Your task to perform on an android device: Search for "apple airpods" on costco.com, select the first entry, add it to the cart, then select checkout. Image 0: 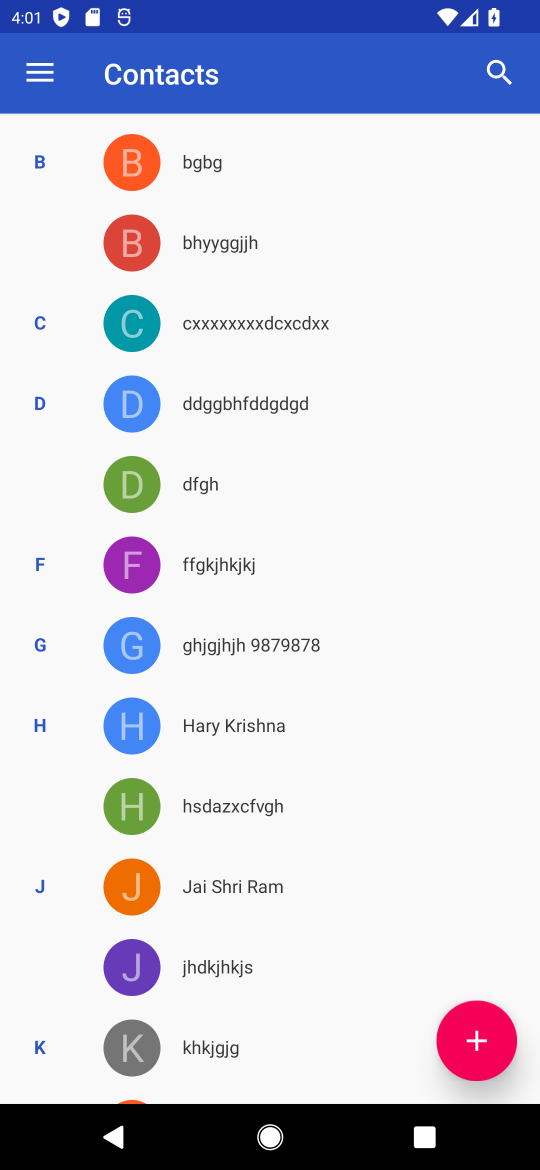
Step 0: press home button
Your task to perform on an android device: Search for "apple airpods" on costco.com, select the first entry, add it to the cart, then select checkout. Image 1: 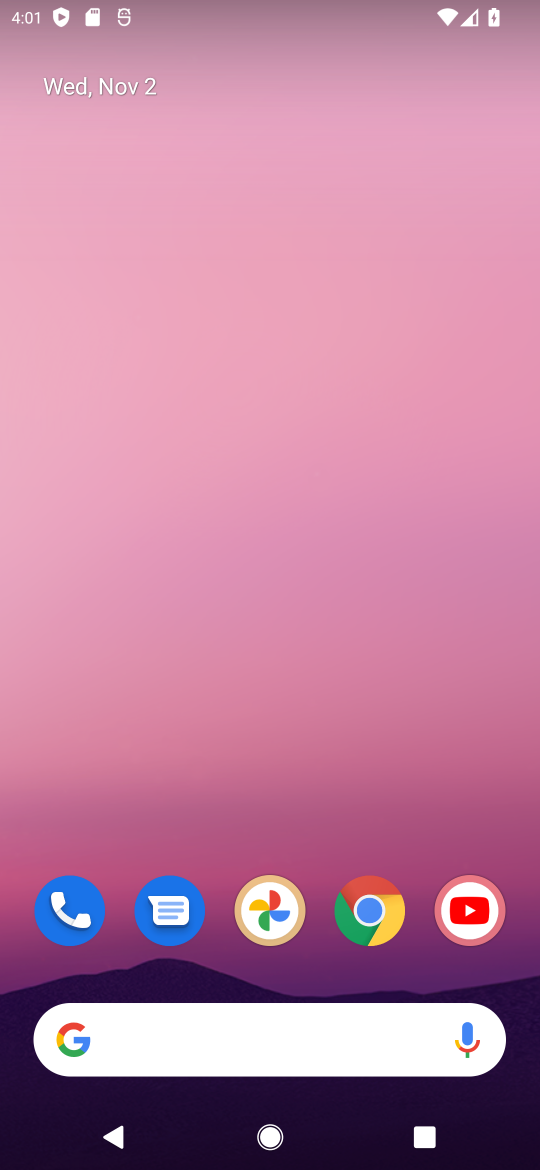
Step 1: click (380, 920)
Your task to perform on an android device: Search for "apple airpods" on costco.com, select the first entry, add it to the cart, then select checkout. Image 2: 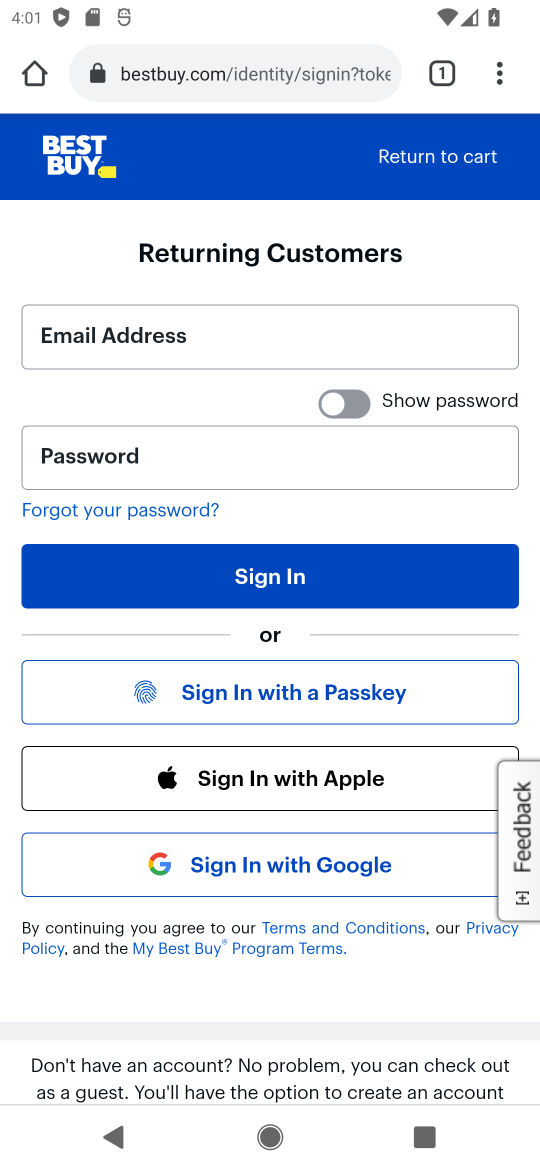
Step 2: click (155, 94)
Your task to perform on an android device: Search for "apple airpods" on costco.com, select the first entry, add it to the cart, then select checkout. Image 3: 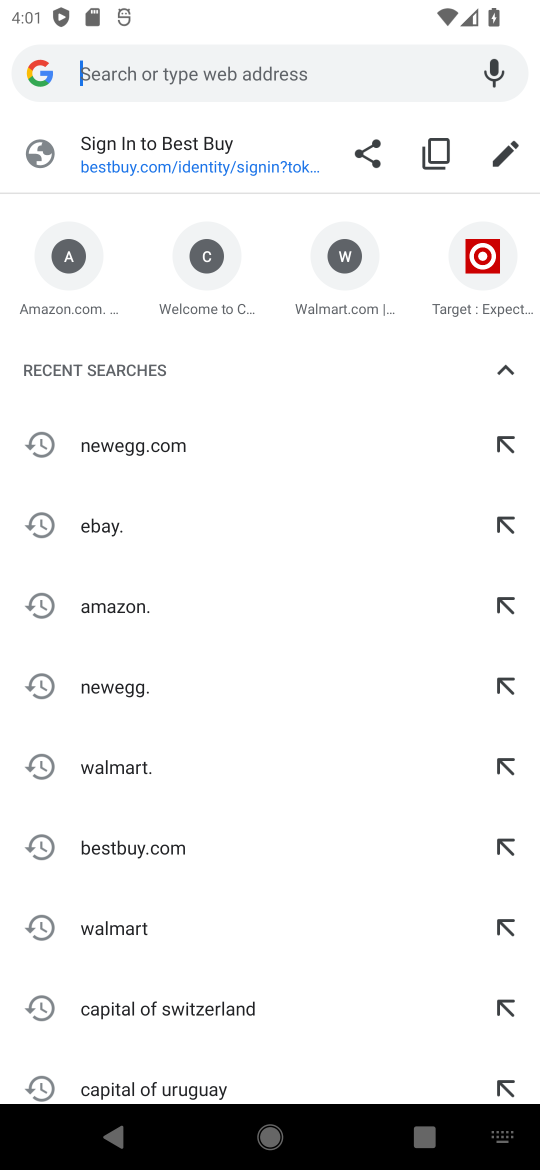
Step 3: type "costco.com"
Your task to perform on an android device: Search for "apple airpods" on costco.com, select the first entry, add it to the cart, then select checkout. Image 4: 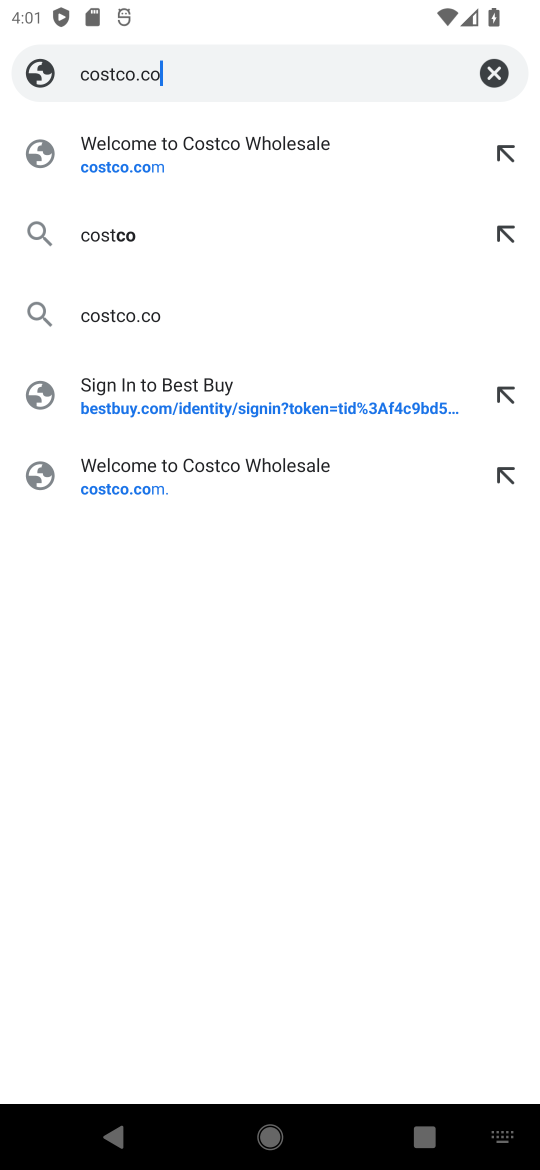
Step 4: type ""
Your task to perform on an android device: Search for "apple airpods" on costco.com, select the first entry, add it to the cart, then select checkout. Image 5: 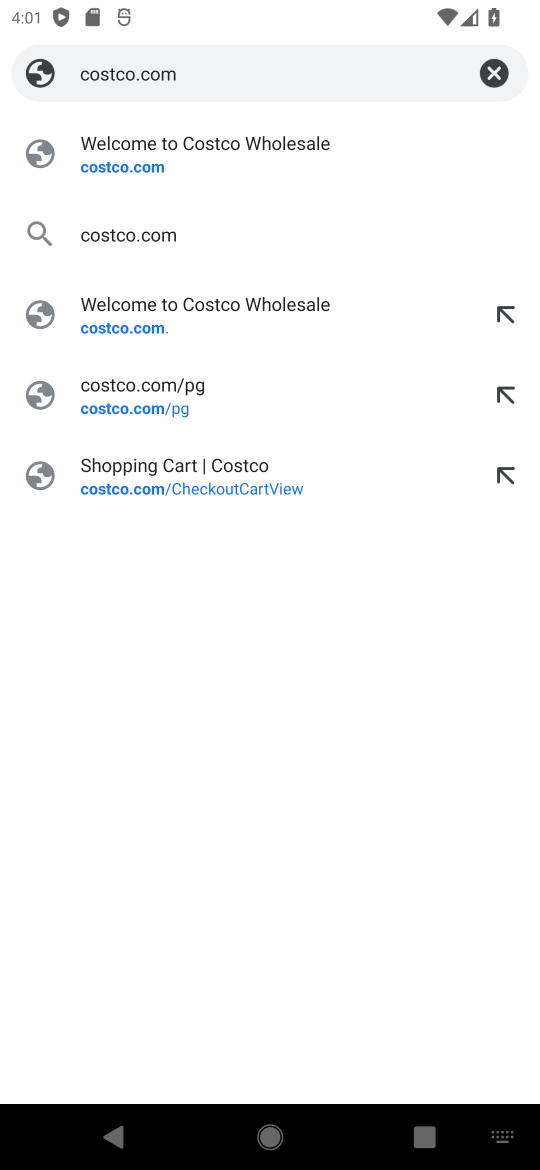
Step 5: click (205, 146)
Your task to perform on an android device: Search for "apple airpods" on costco.com, select the first entry, add it to the cart, then select checkout. Image 6: 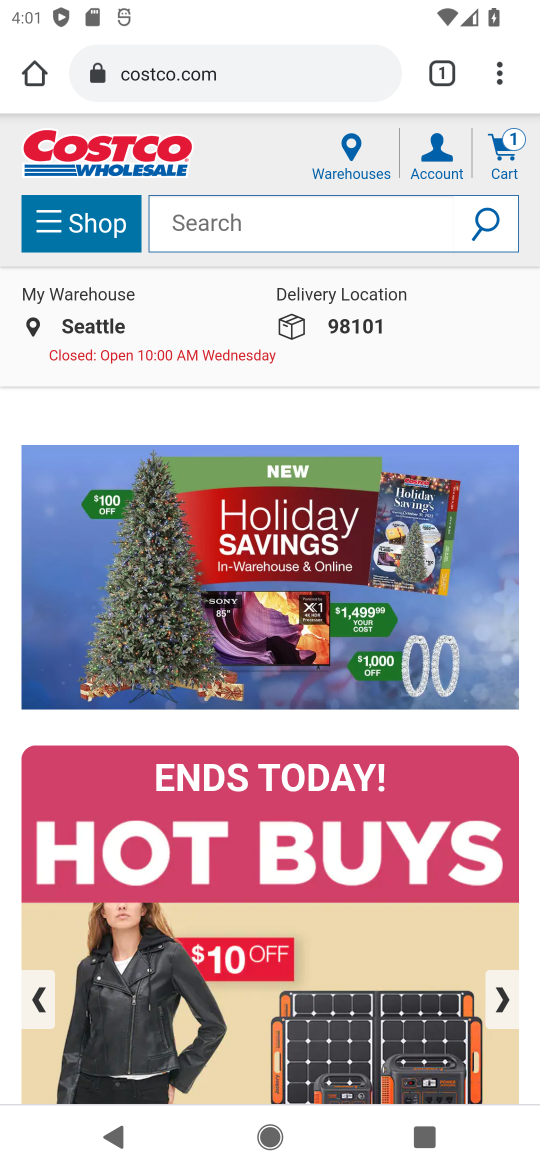
Step 6: click (270, 224)
Your task to perform on an android device: Search for "apple airpods" on costco.com, select the first entry, add it to the cart, then select checkout. Image 7: 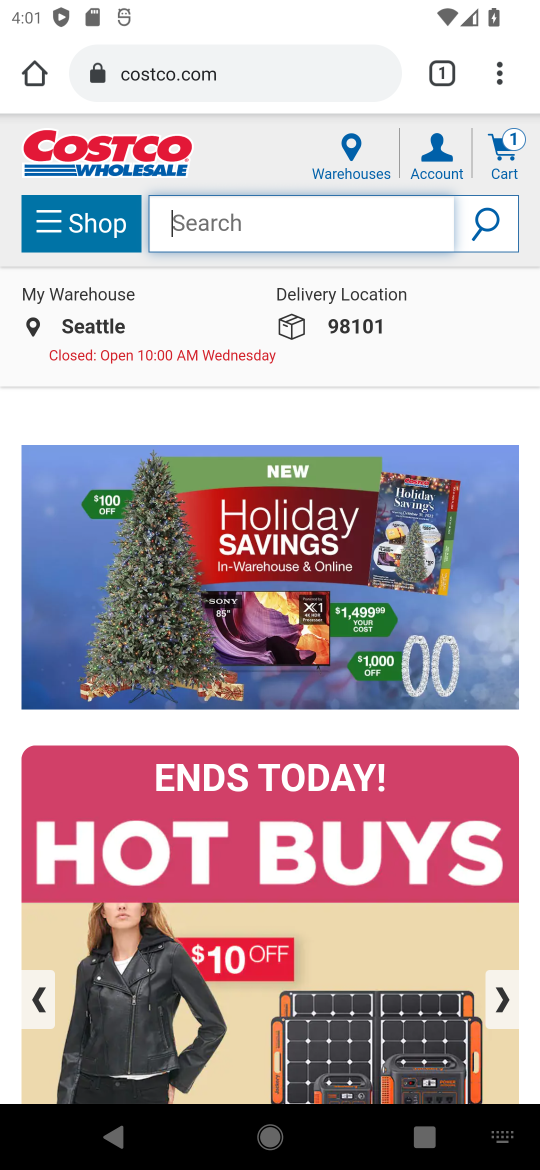
Step 7: click (527, 134)
Your task to perform on an android device: Search for "apple airpods" on costco.com, select the first entry, add it to the cart, then select checkout. Image 8: 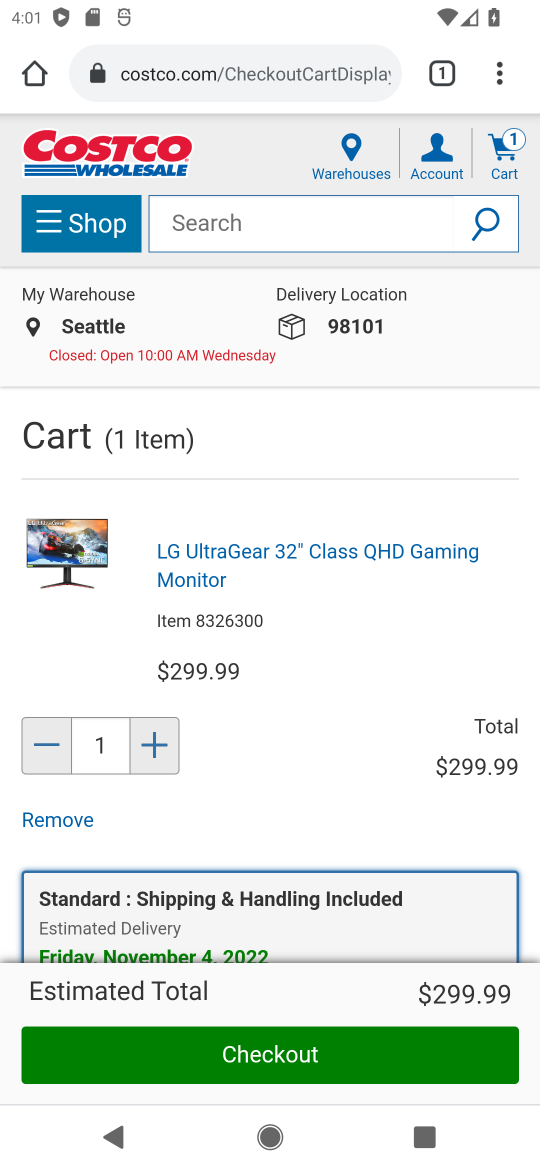
Step 8: click (59, 819)
Your task to perform on an android device: Search for "apple airpods" on costco.com, select the first entry, add it to the cart, then select checkout. Image 9: 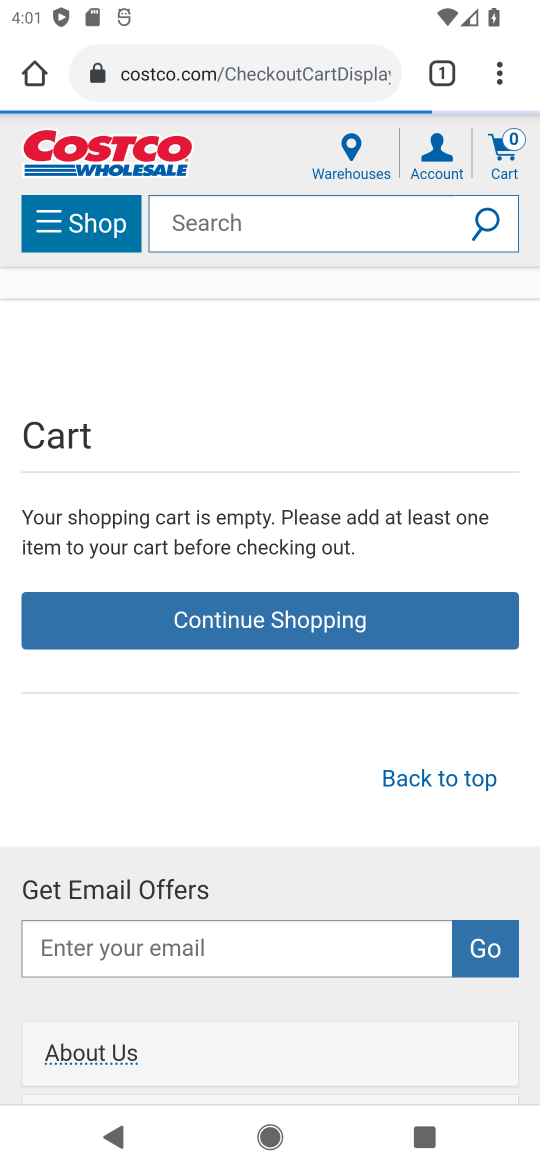
Step 9: click (321, 224)
Your task to perform on an android device: Search for "apple airpods" on costco.com, select the first entry, add it to the cart, then select checkout. Image 10: 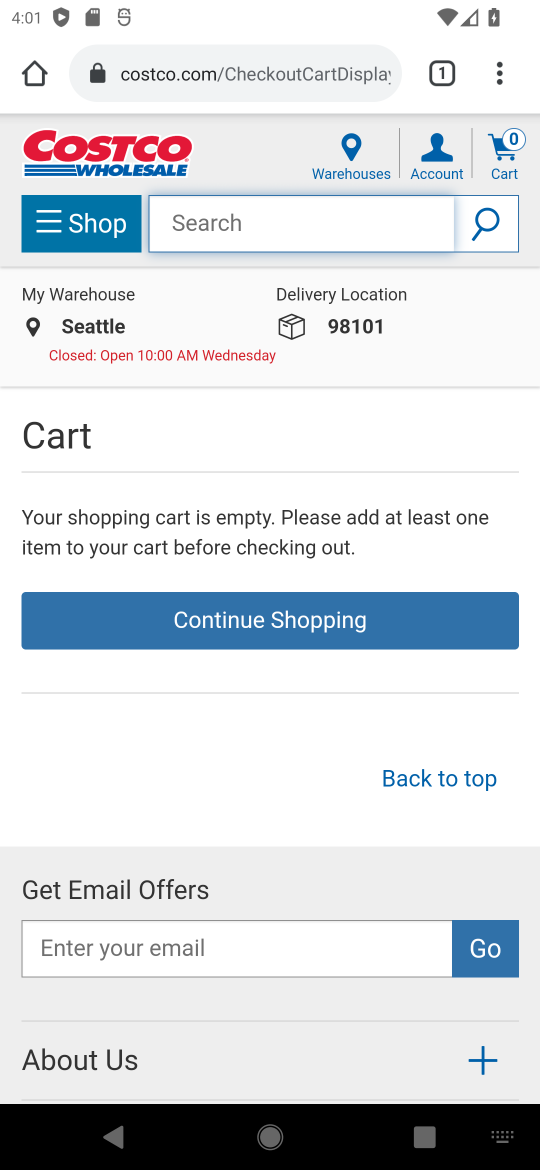
Step 10: type "apple airpods"
Your task to perform on an android device: Search for "apple airpods" on costco.com, select the first entry, add it to the cart, then select checkout. Image 11: 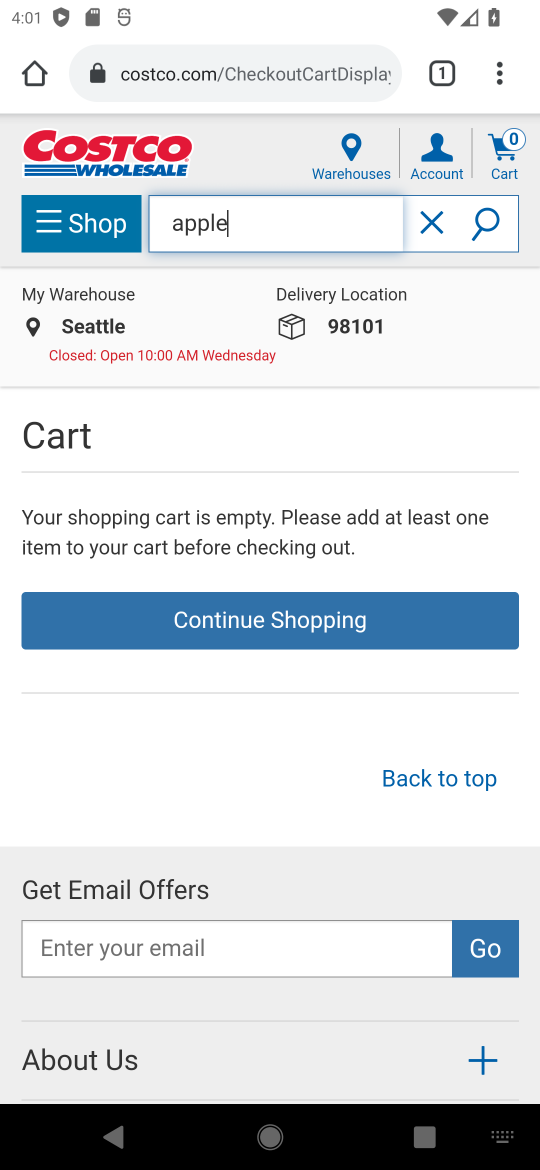
Step 11: type ""
Your task to perform on an android device: Search for "apple airpods" on costco.com, select the first entry, add it to the cart, then select checkout. Image 12: 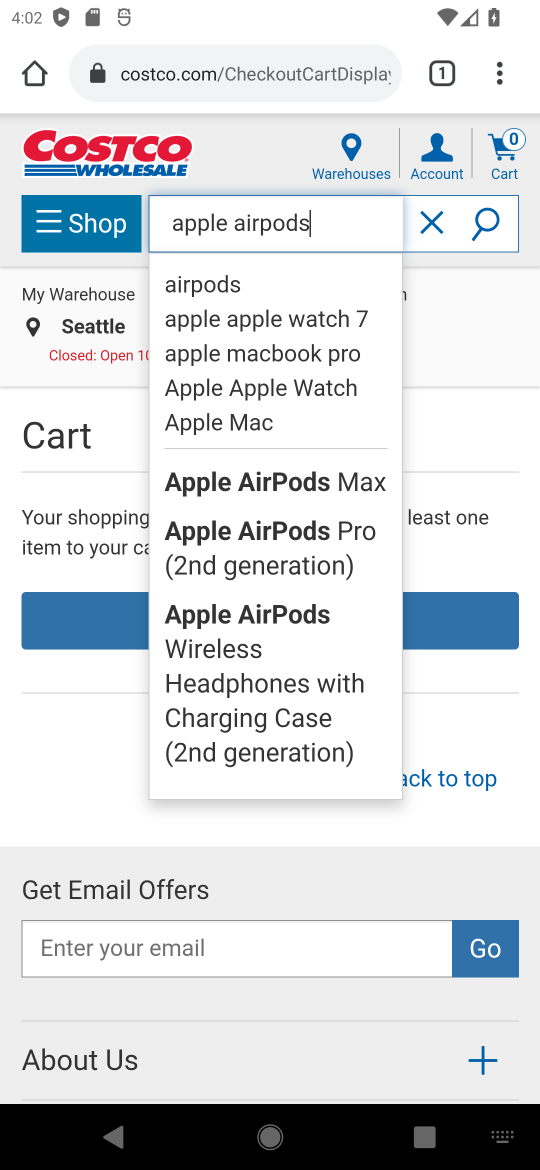
Step 12: click (468, 218)
Your task to perform on an android device: Search for "apple airpods" on costco.com, select the first entry, add it to the cart, then select checkout. Image 13: 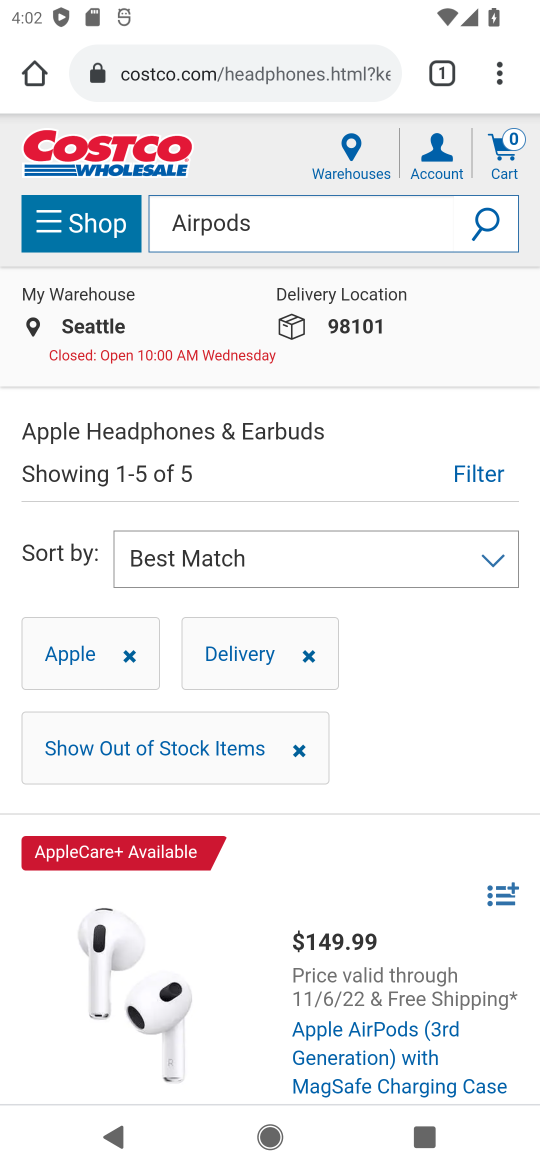
Step 13: click (305, 1022)
Your task to perform on an android device: Search for "apple airpods" on costco.com, select the first entry, add it to the cart, then select checkout. Image 14: 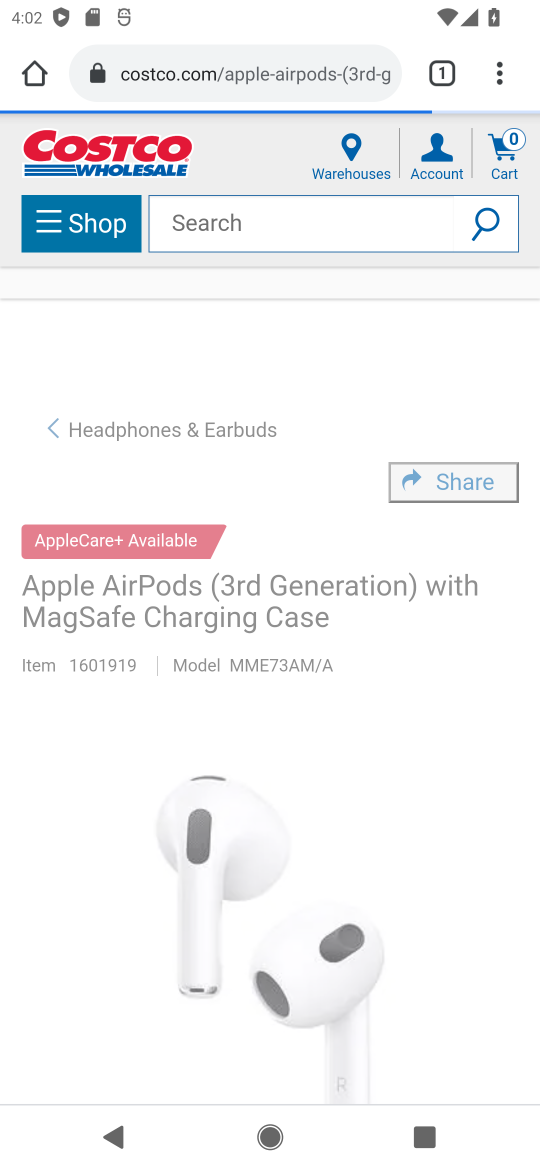
Step 14: drag from (340, 954) to (361, 526)
Your task to perform on an android device: Search for "apple airpods" on costco.com, select the first entry, add it to the cart, then select checkout. Image 15: 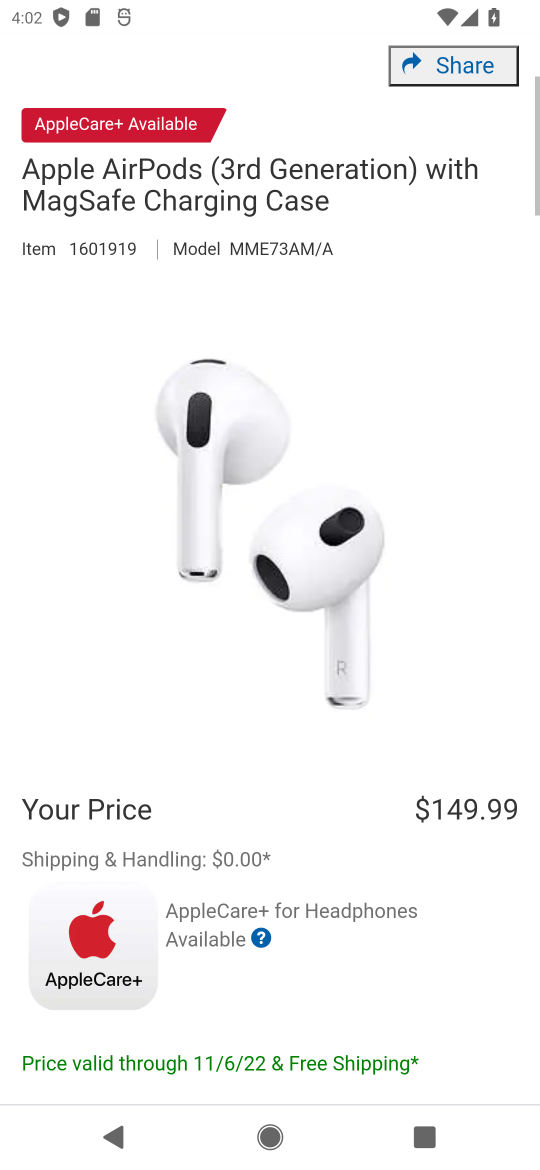
Step 15: drag from (338, 918) to (341, 554)
Your task to perform on an android device: Search for "apple airpods" on costco.com, select the first entry, add it to the cart, then select checkout. Image 16: 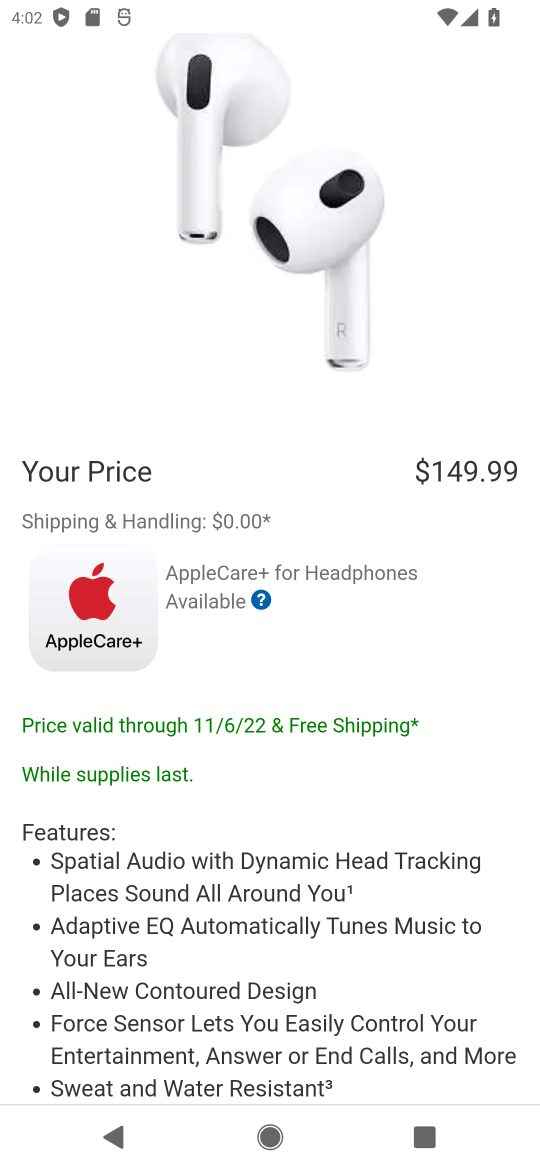
Step 16: drag from (386, 874) to (396, 437)
Your task to perform on an android device: Search for "apple airpods" on costco.com, select the first entry, add it to the cart, then select checkout. Image 17: 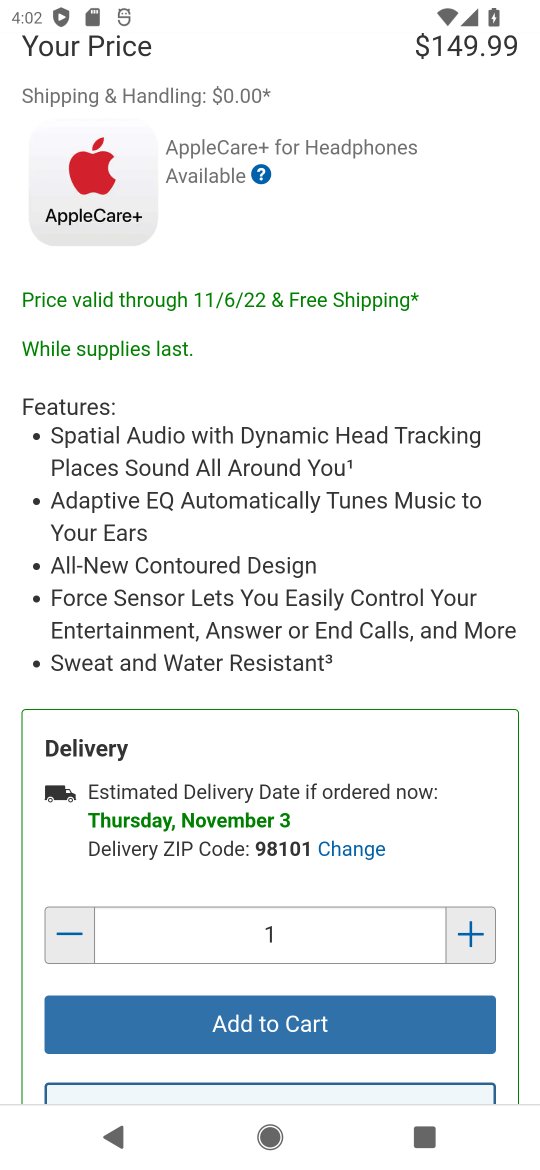
Step 17: click (319, 1029)
Your task to perform on an android device: Search for "apple airpods" on costco.com, select the first entry, add it to the cart, then select checkout. Image 18: 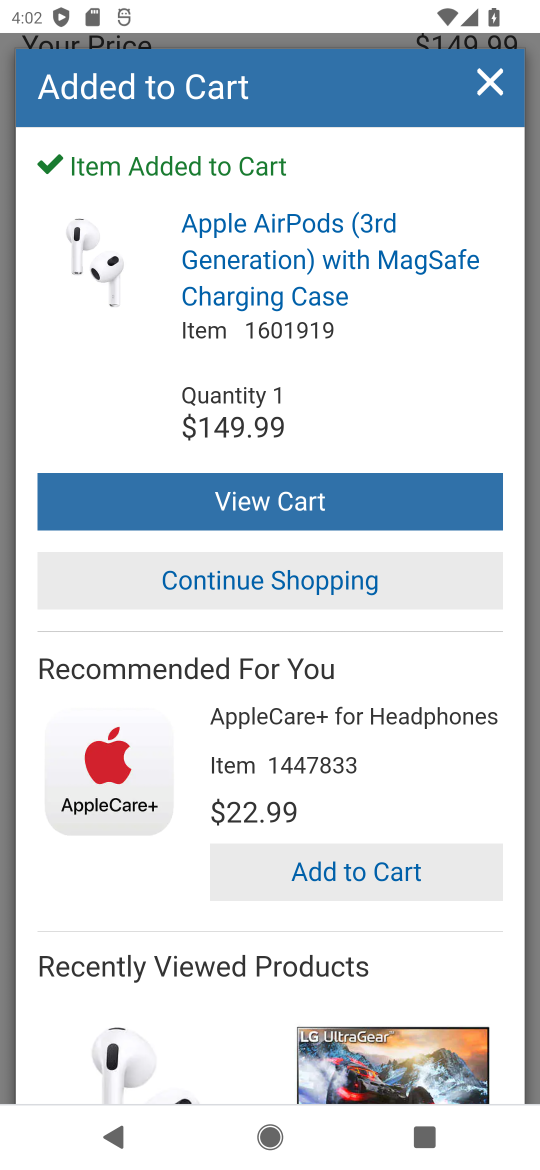
Step 18: click (365, 497)
Your task to perform on an android device: Search for "apple airpods" on costco.com, select the first entry, add it to the cart, then select checkout. Image 19: 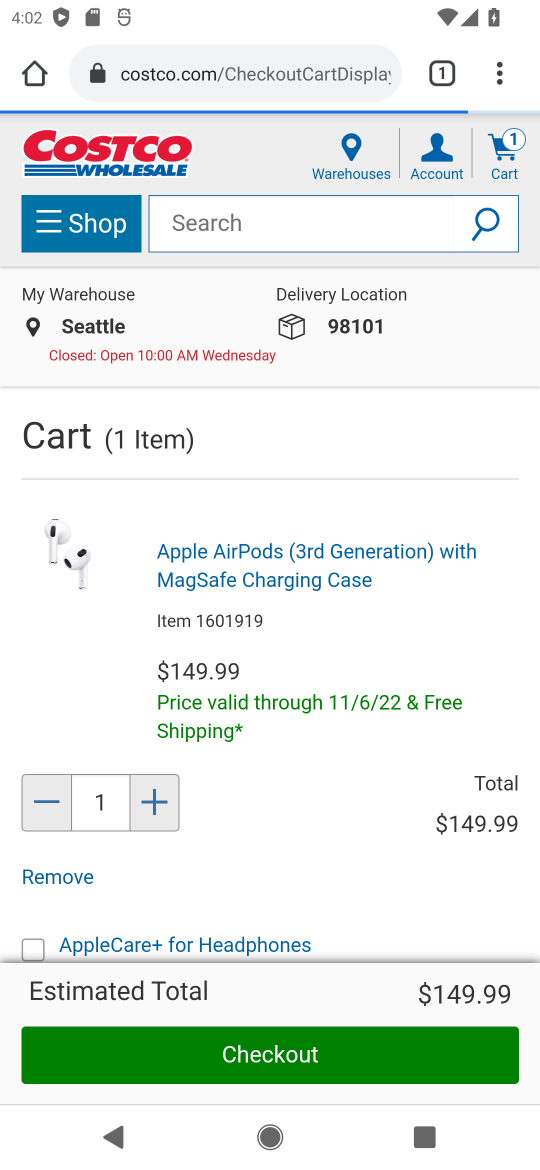
Step 19: drag from (350, 787) to (404, 459)
Your task to perform on an android device: Search for "apple airpods" on costco.com, select the first entry, add it to the cart, then select checkout. Image 20: 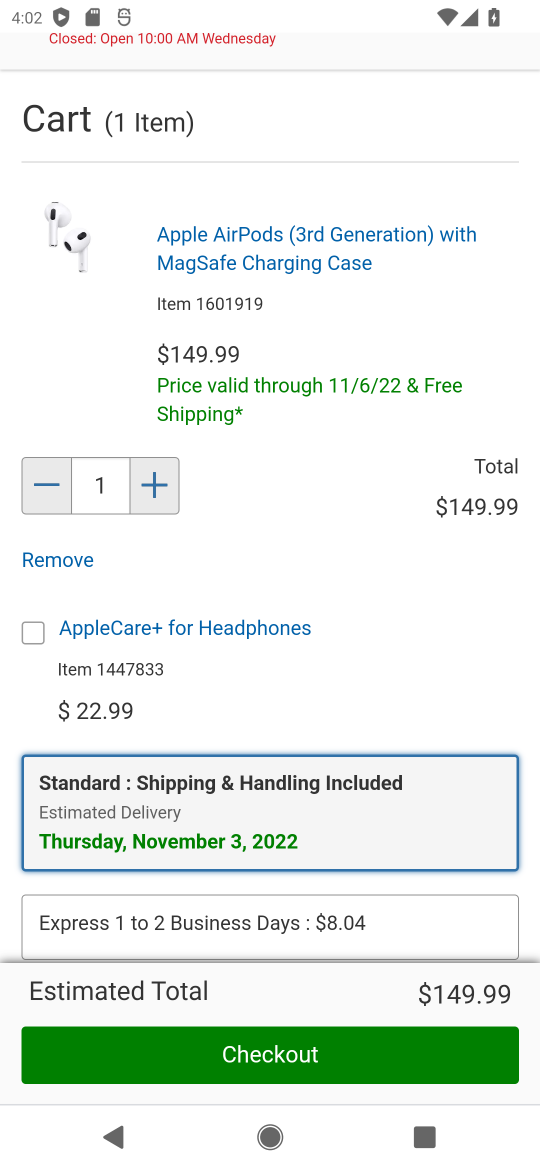
Step 20: click (309, 1049)
Your task to perform on an android device: Search for "apple airpods" on costco.com, select the first entry, add it to the cart, then select checkout. Image 21: 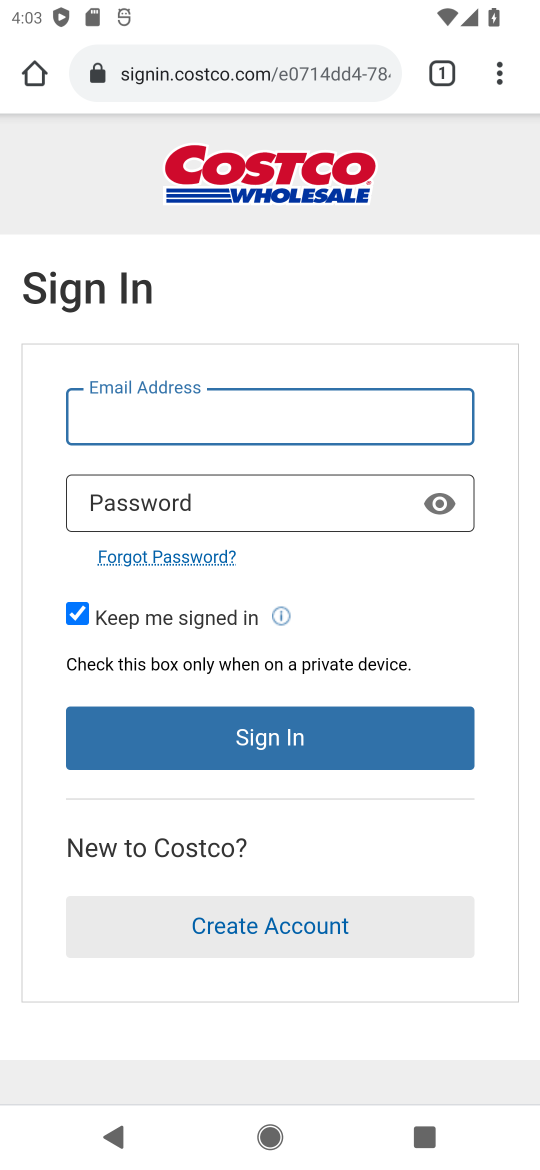
Step 21: click (532, 578)
Your task to perform on an android device: Search for "apple airpods" on costco.com, select the first entry, add it to the cart, then select checkout. Image 22: 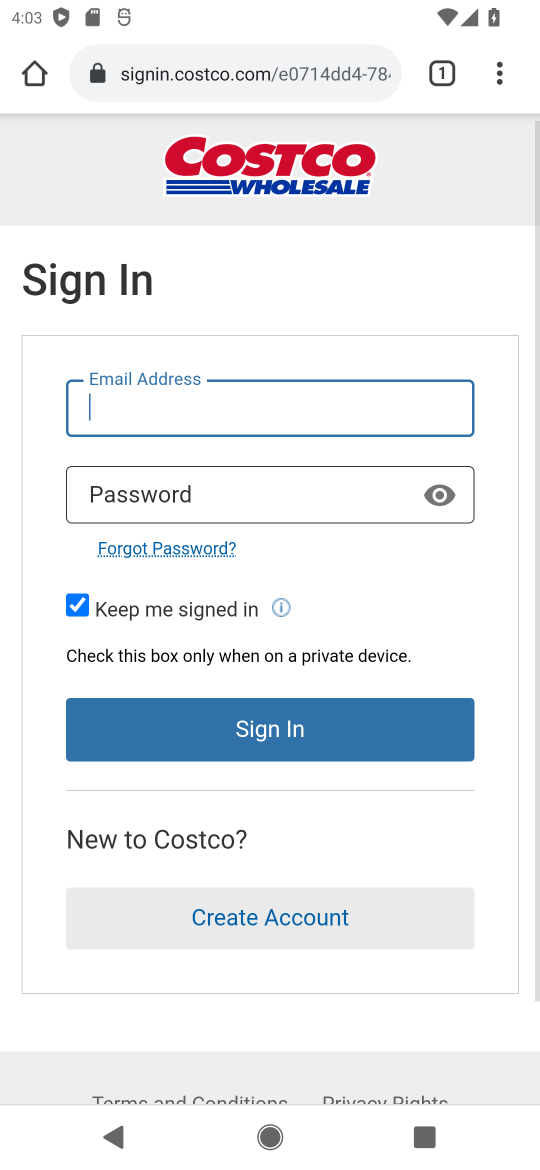
Step 22: task complete